Your task to perform on an android device: allow cookies in the chrome app Image 0: 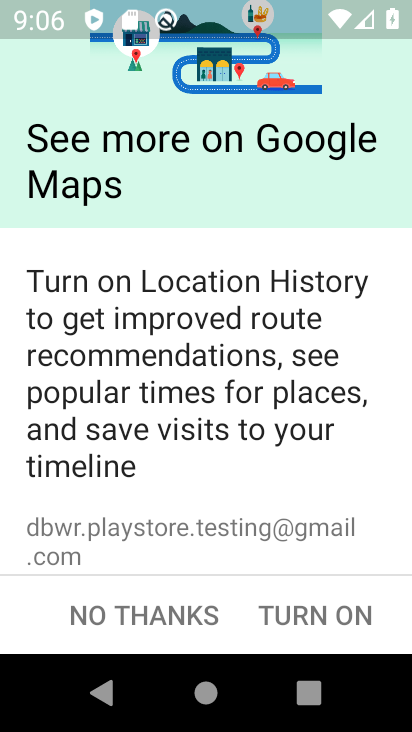
Step 0: press home button
Your task to perform on an android device: allow cookies in the chrome app Image 1: 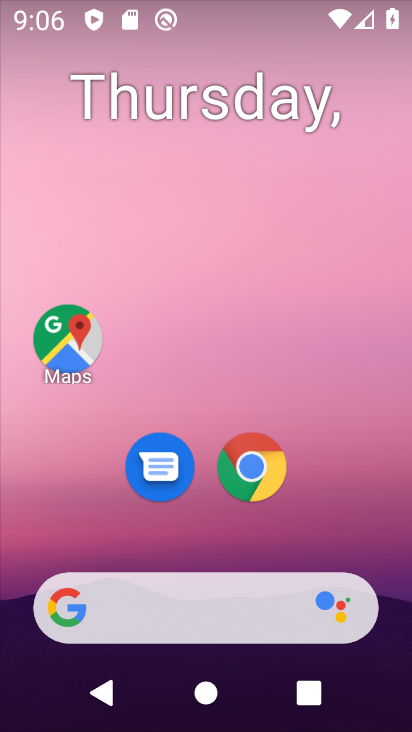
Step 1: drag from (323, 491) to (247, 0)
Your task to perform on an android device: allow cookies in the chrome app Image 2: 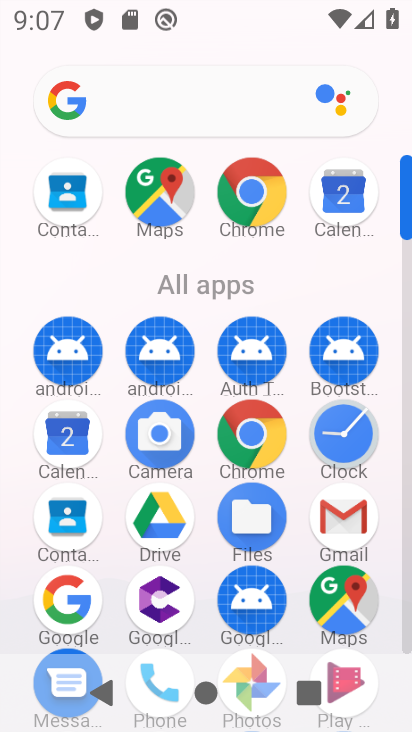
Step 2: click (271, 221)
Your task to perform on an android device: allow cookies in the chrome app Image 3: 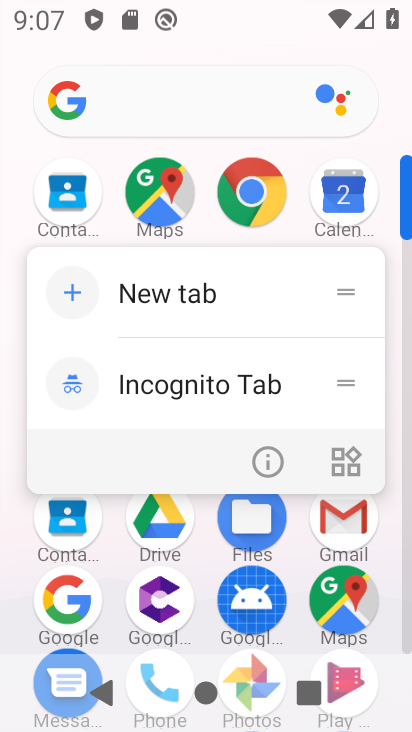
Step 3: click (262, 204)
Your task to perform on an android device: allow cookies in the chrome app Image 4: 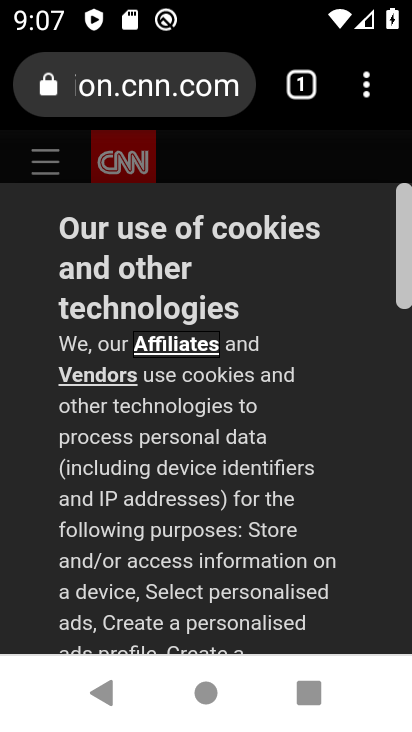
Step 4: drag from (367, 112) to (206, 527)
Your task to perform on an android device: allow cookies in the chrome app Image 5: 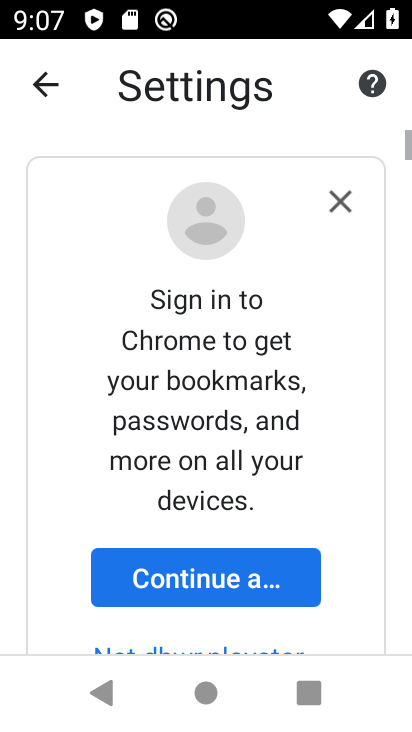
Step 5: drag from (240, 582) to (189, 226)
Your task to perform on an android device: allow cookies in the chrome app Image 6: 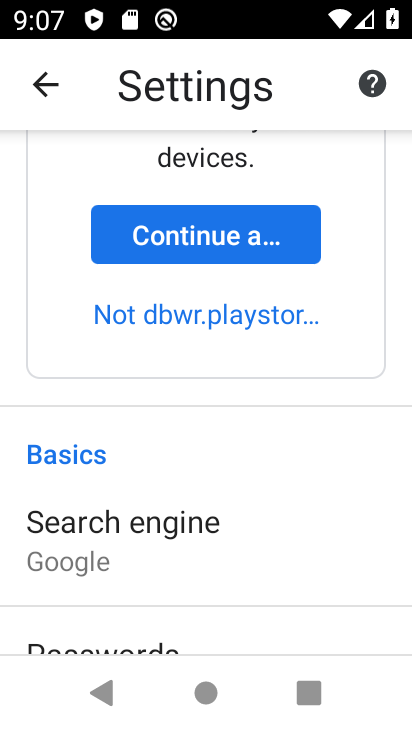
Step 6: drag from (244, 576) to (206, 279)
Your task to perform on an android device: allow cookies in the chrome app Image 7: 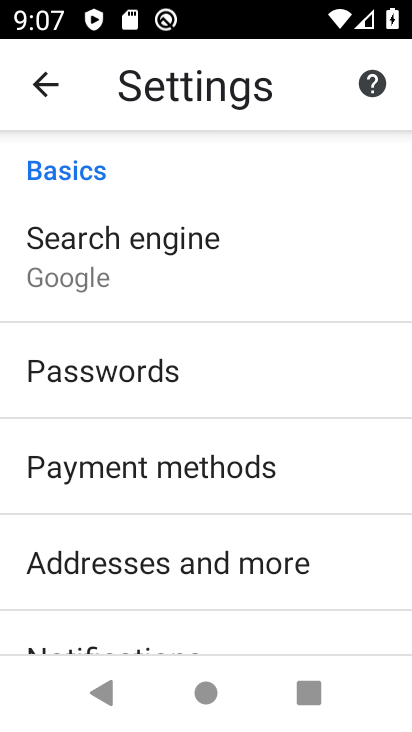
Step 7: drag from (211, 588) to (140, 256)
Your task to perform on an android device: allow cookies in the chrome app Image 8: 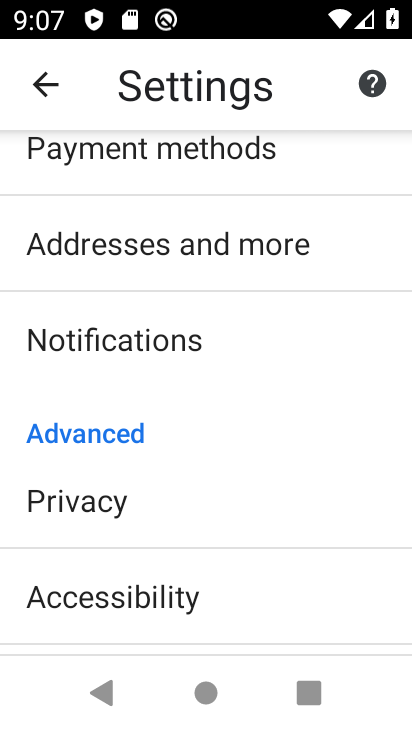
Step 8: drag from (203, 574) to (205, 234)
Your task to perform on an android device: allow cookies in the chrome app Image 9: 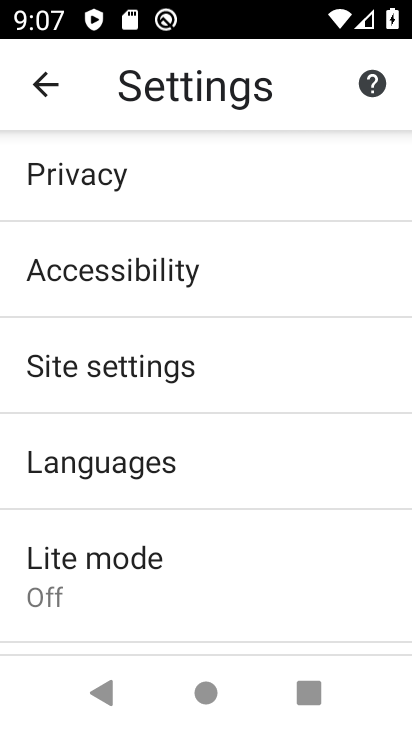
Step 9: click (172, 366)
Your task to perform on an android device: allow cookies in the chrome app Image 10: 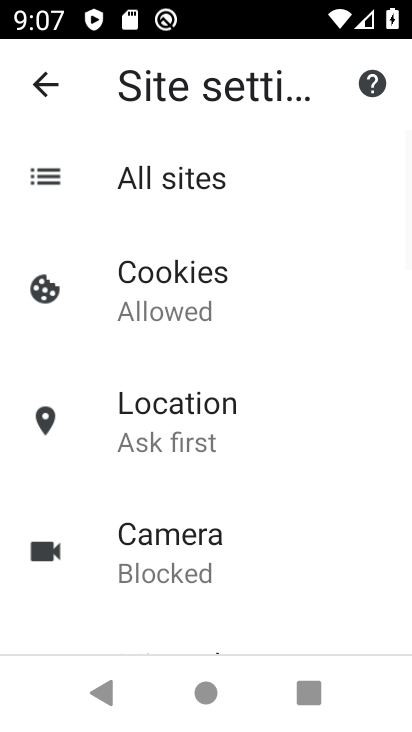
Step 10: drag from (179, 532) to (173, 288)
Your task to perform on an android device: allow cookies in the chrome app Image 11: 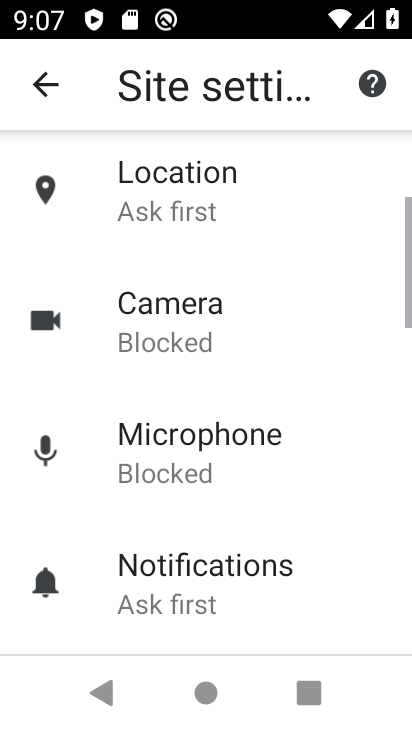
Step 11: drag from (166, 298) to (209, 609)
Your task to perform on an android device: allow cookies in the chrome app Image 12: 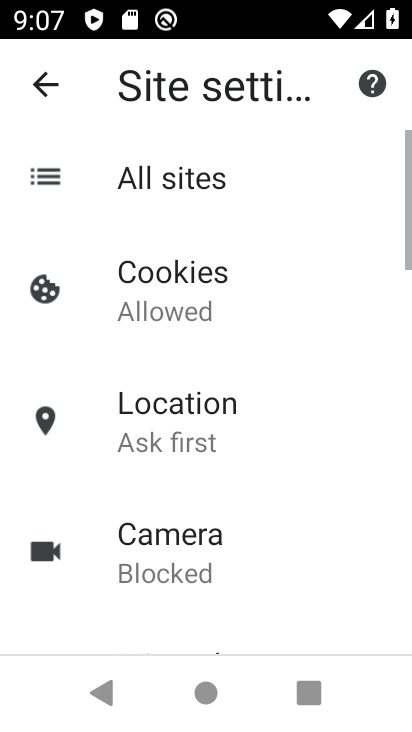
Step 12: click (192, 290)
Your task to perform on an android device: allow cookies in the chrome app Image 13: 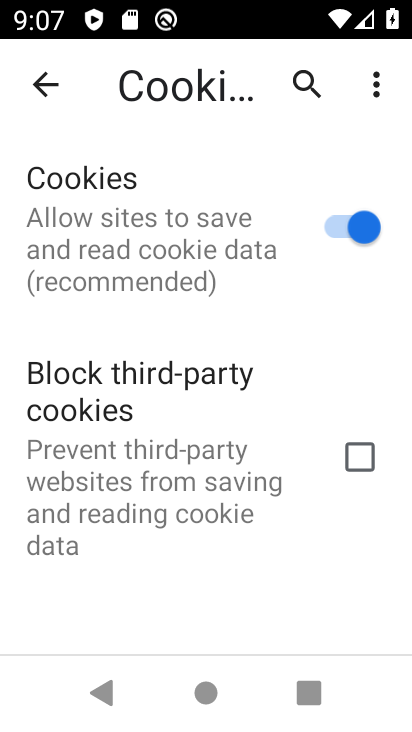
Step 13: task complete